Your task to perform on an android device: Open CNN.com Image 0: 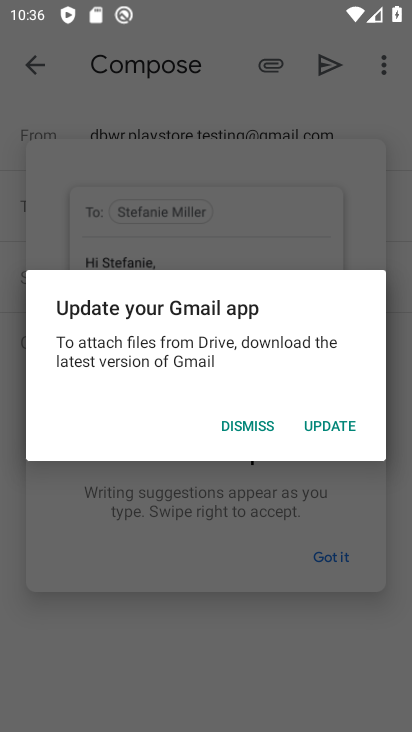
Step 0: press home button
Your task to perform on an android device: Open CNN.com Image 1: 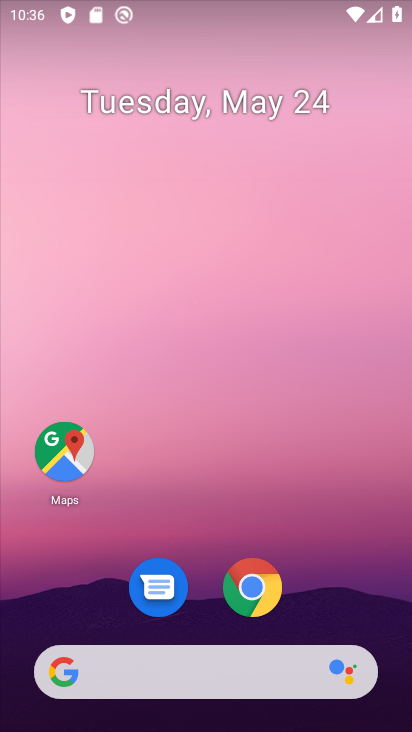
Step 1: drag from (340, 589) to (250, 36)
Your task to perform on an android device: Open CNN.com Image 2: 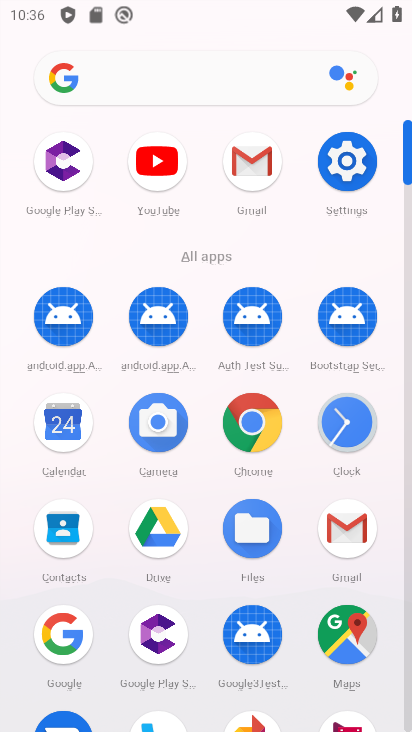
Step 2: drag from (7, 557) to (7, 265)
Your task to perform on an android device: Open CNN.com Image 3: 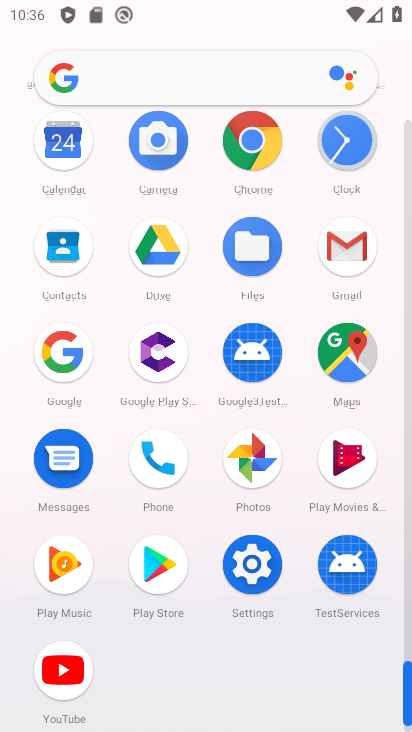
Step 3: click (253, 136)
Your task to perform on an android device: Open CNN.com Image 4: 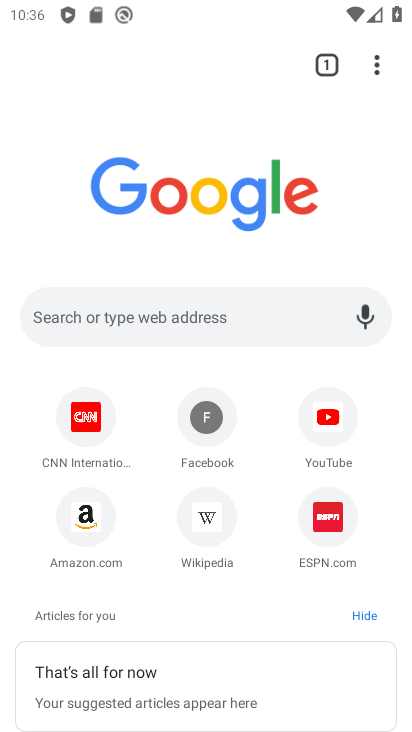
Step 4: click (258, 320)
Your task to perform on an android device: Open CNN.com Image 5: 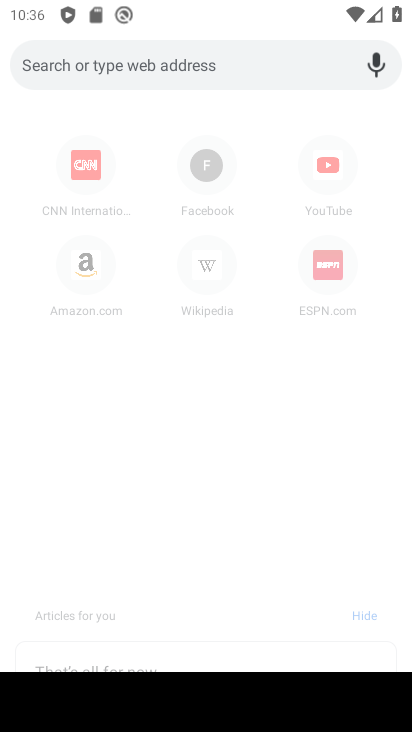
Step 5: type "CNN.com"
Your task to perform on an android device: Open CNN.com Image 6: 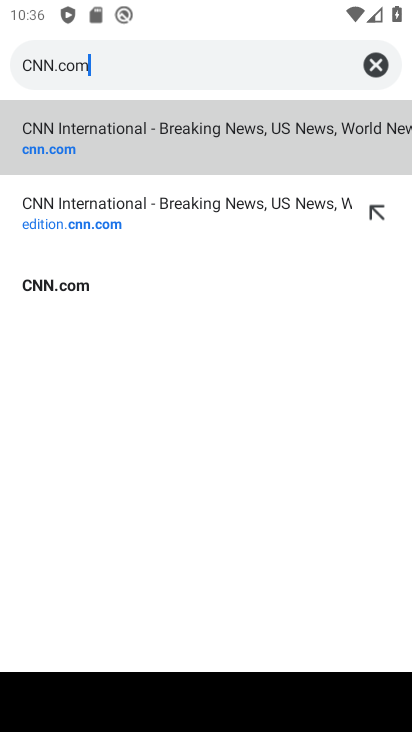
Step 6: type ""
Your task to perform on an android device: Open CNN.com Image 7: 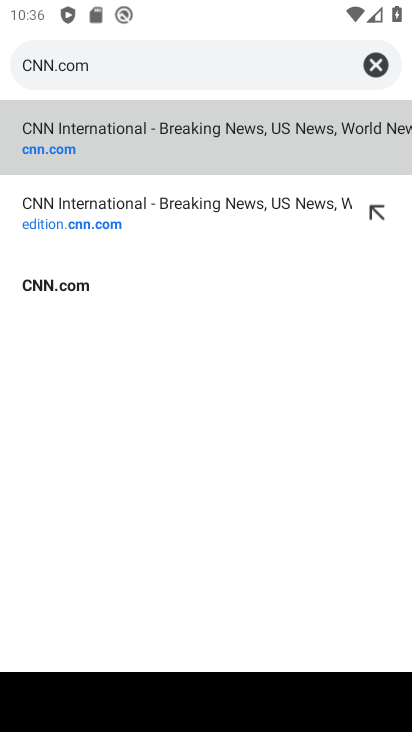
Step 7: click (107, 137)
Your task to perform on an android device: Open CNN.com Image 8: 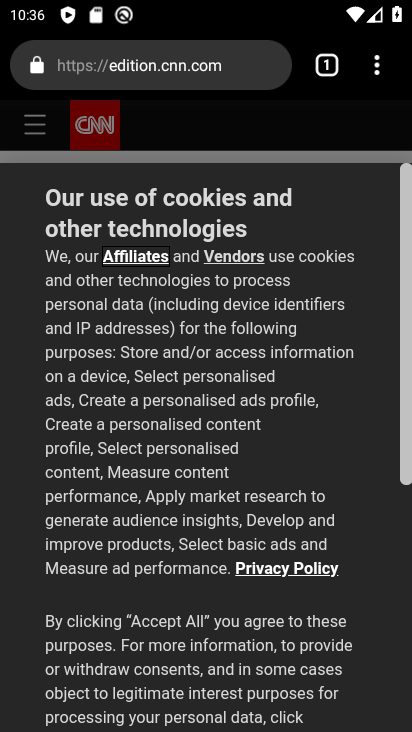
Step 8: task complete